Your task to perform on an android device: Open the web browser Image 0: 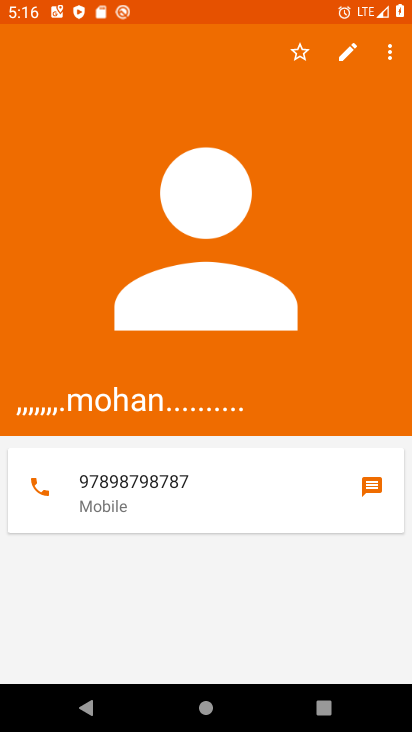
Step 0: press home button
Your task to perform on an android device: Open the web browser Image 1: 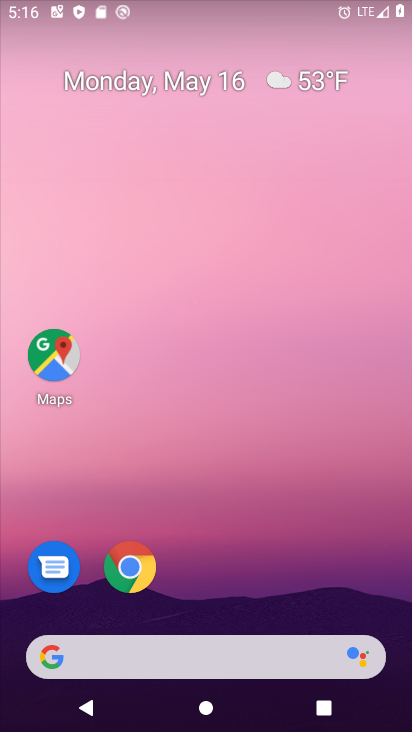
Step 1: drag from (232, 631) to (256, 80)
Your task to perform on an android device: Open the web browser Image 2: 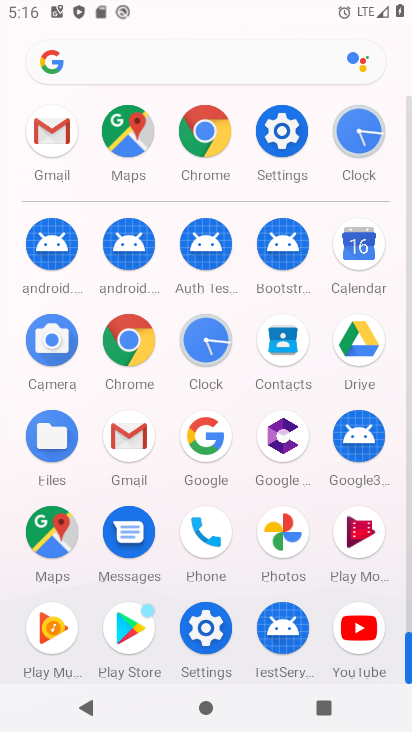
Step 2: click (156, 260)
Your task to perform on an android device: Open the web browser Image 3: 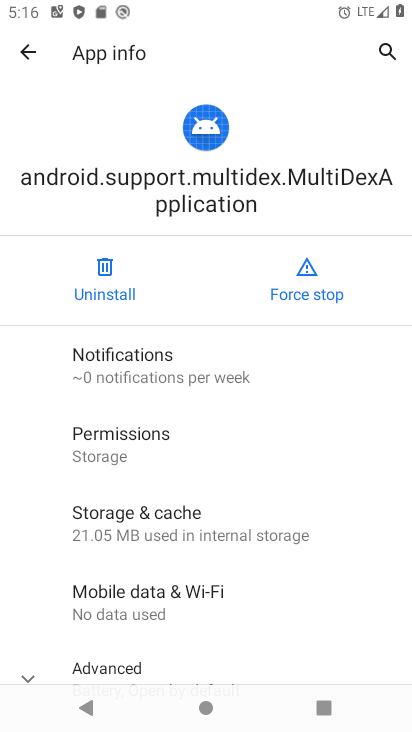
Step 3: press home button
Your task to perform on an android device: Open the web browser Image 4: 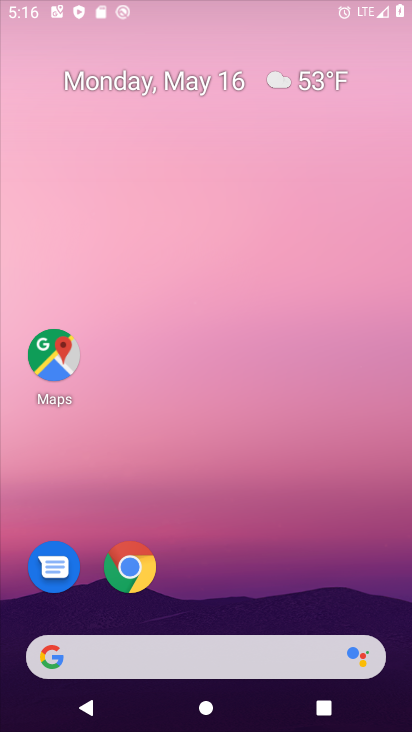
Step 4: drag from (222, 661) to (106, 132)
Your task to perform on an android device: Open the web browser Image 5: 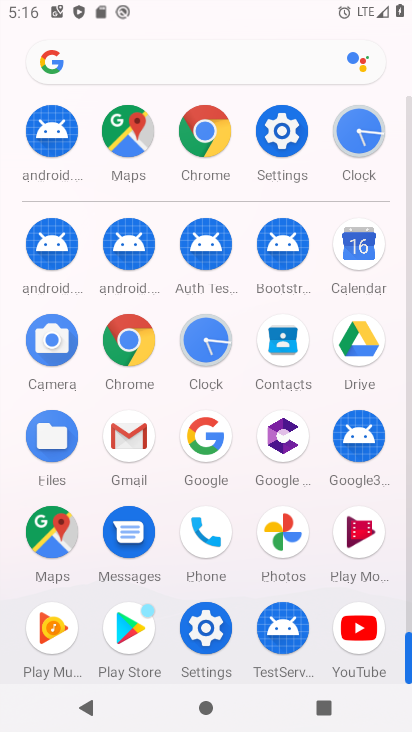
Step 5: click (125, 362)
Your task to perform on an android device: Open the web browser Image 6: 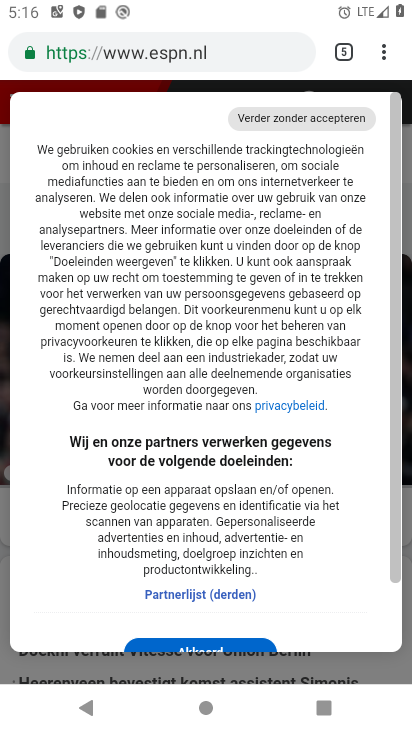
Step 6: click (381, 52)
Your task to perform on an android device: Open the web browser Image 7: 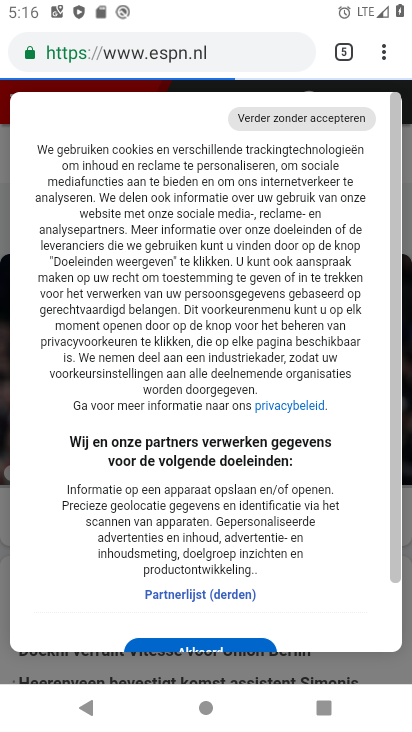
Step 7: click (381, 52)
Your task to perform on an android device: Open the web browser Image 8: 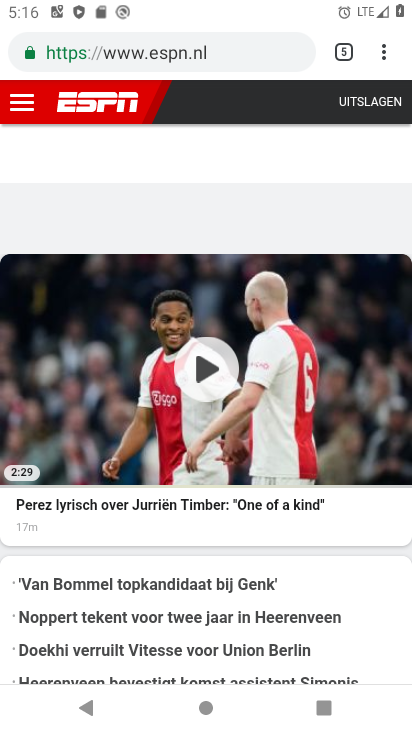
Step 8: click (381, 52)
Your task to perform on an android device: Open the web browser Image 9: 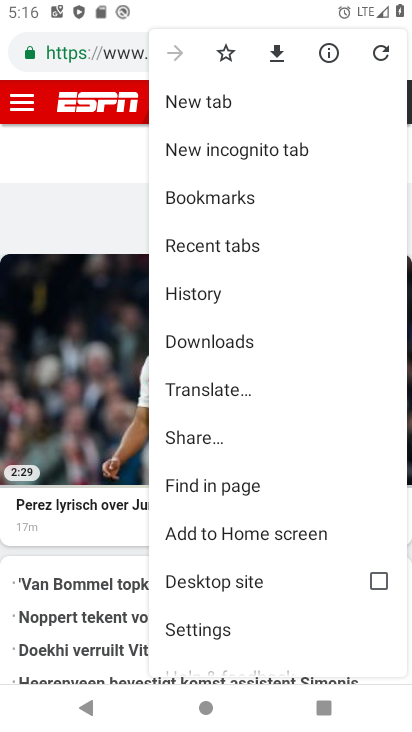
Step 9: drag from (278, 603) to (260, 201)
Your task to perform on an android device: Open the web browser Image 10: 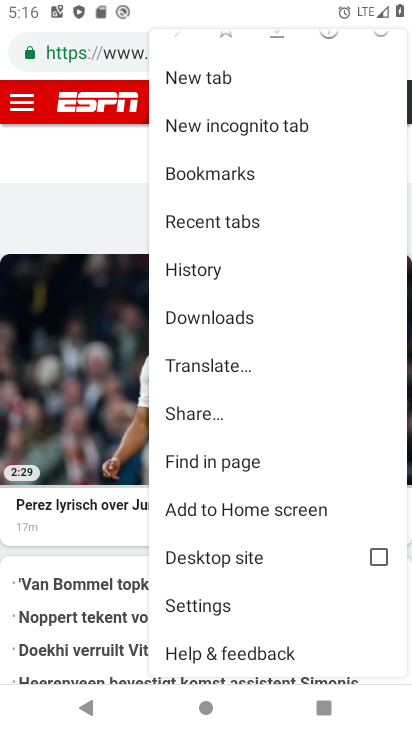
Step 10: drag from (283, 321) to (313, 660)
Your task to perform on an android device: Open the web browser Image 11: 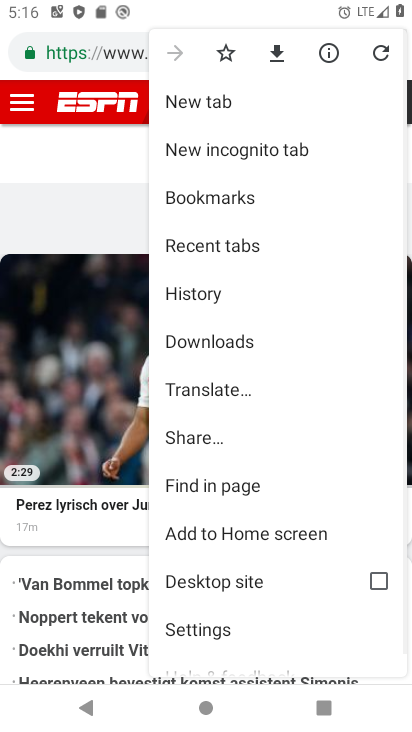
Step 11: click (211, 93)
Your task to perform on an android device: Open the web browser Image 12: 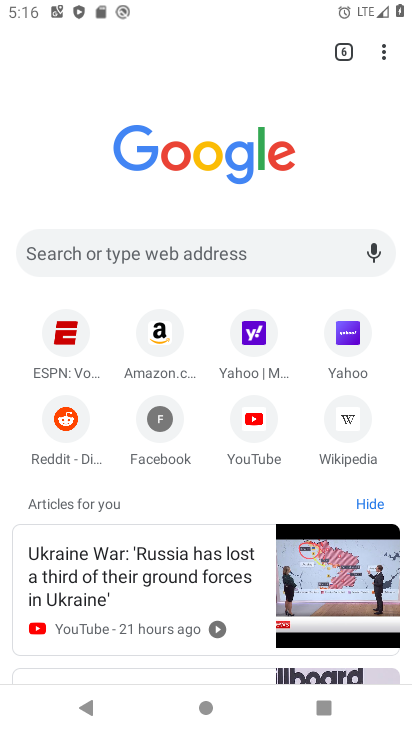
Step 12: task complete